Your task to perform on an android device: empty trash in the gmail app Image 0: 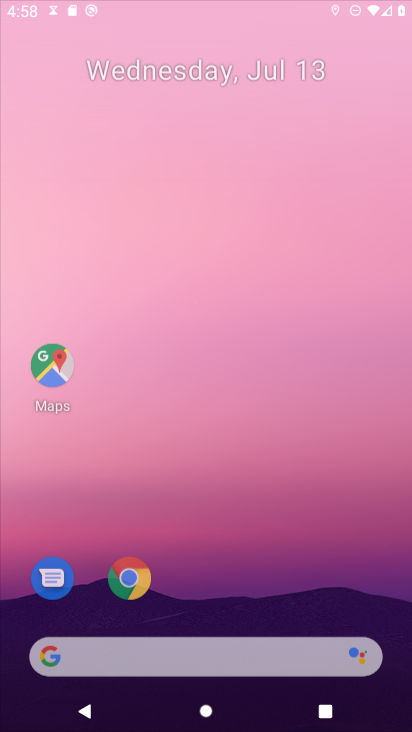
Step 0: click (176, 211)
Your task to perform on an android device: empty trash in the gmail app Image 1: 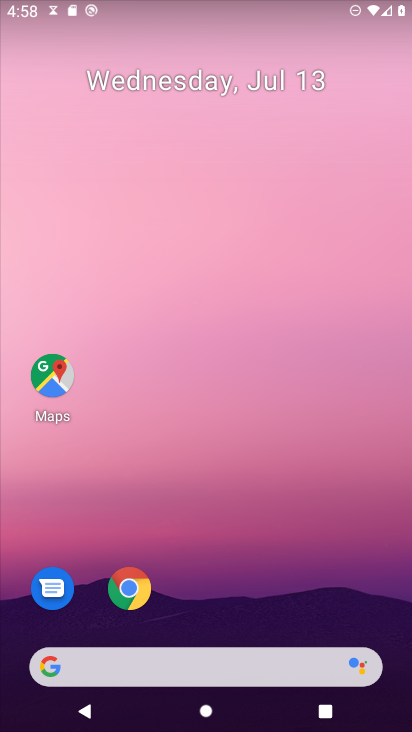
Step 1: drag from (295, 692) to (128, 6)
Your task to perform on an android device: empty trash in the gmail app Image 2: 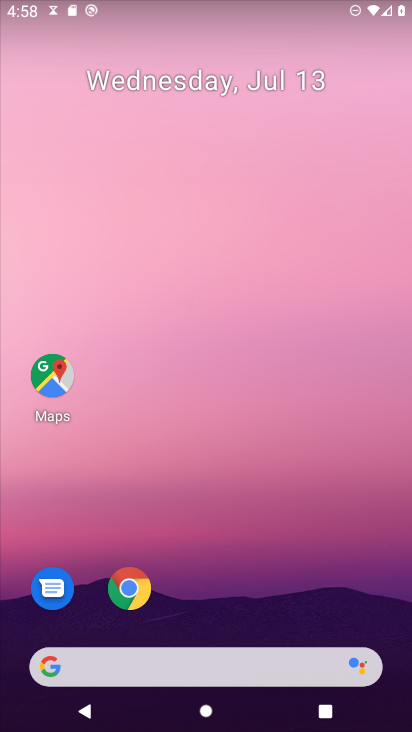
Step 2: drag from (208, 630) to (76, 114)
Your task to perform on an android device: empty trash in the gmail app Image 3: 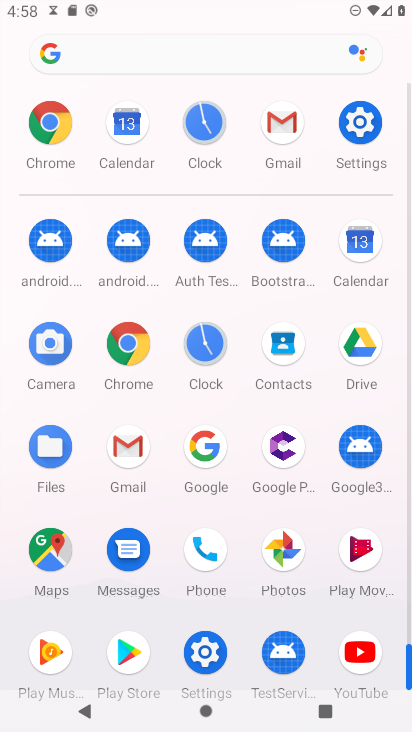
Step 3: click (284, 118)
Your task to perform on an android device: empty trash in the gmail app Image 4: 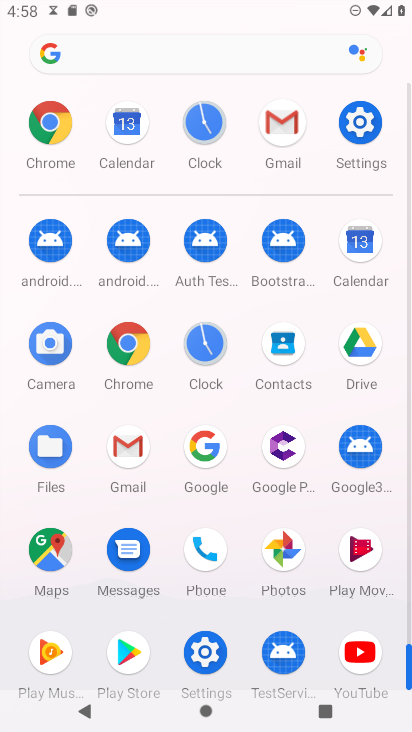
Step 4: click (288, 113)
Your task to perform on an android device: empty trash in the gmail app Image 5: 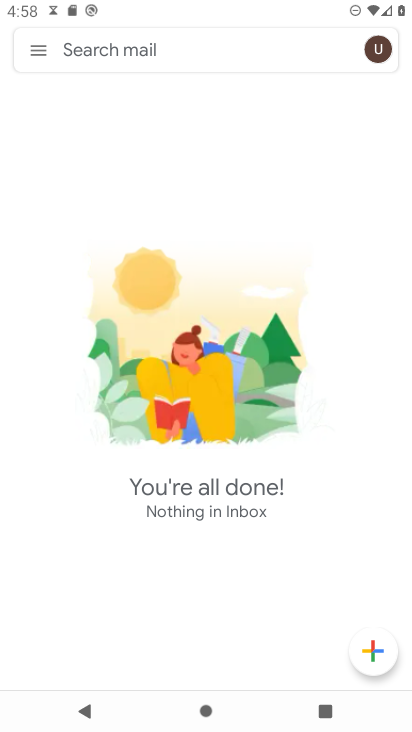
Step 5: click (287, 111)
Your task to perform on an android device: empty trash in the gmail app Image 6: 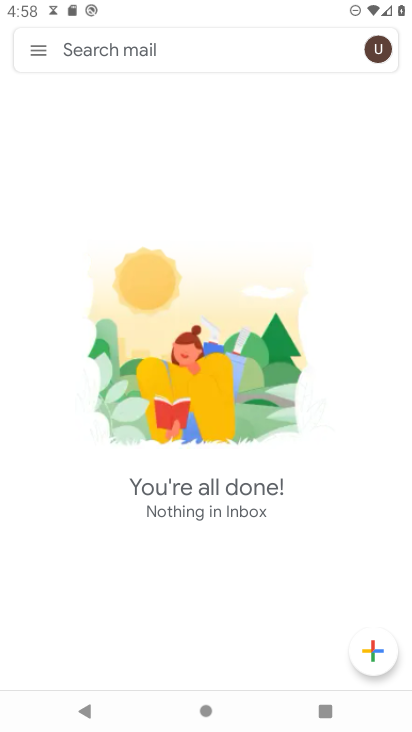
Step 6: click (41, 45)
Your task to perform on an android device: empty trash in the gmail app Image 7: 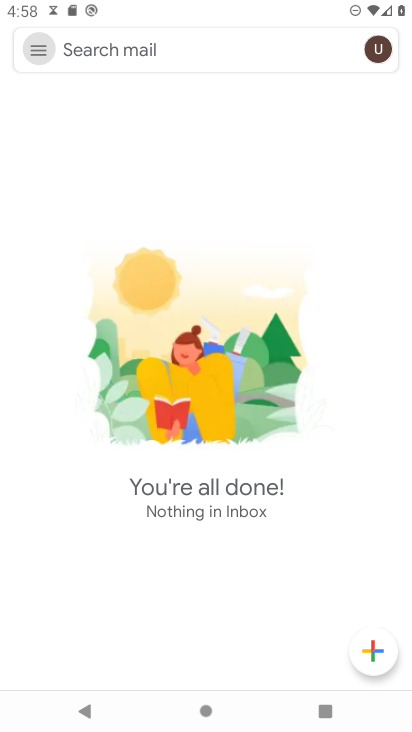
Step 7: click (41, 45)
Your task to perform on an android device: empty trash in the gmail app Image 8: 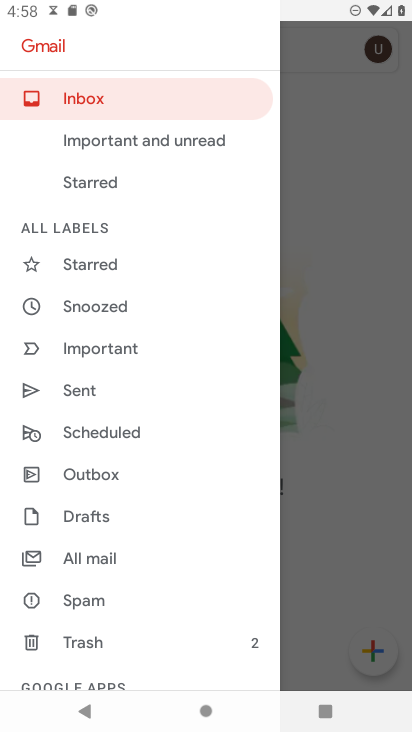
Step 8: click (88, 637)
Your task to perform on an android device: empty trash in the gmail app Image 9: 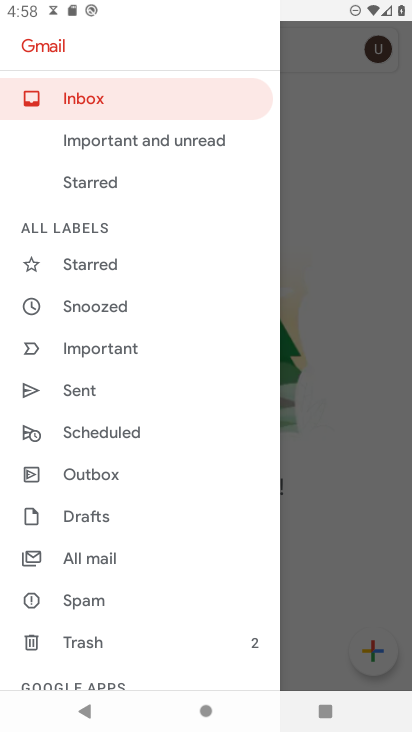
Step 9: click (93, 644)
Your task to perform on an android device: empty trash in the gmail app Image 10: 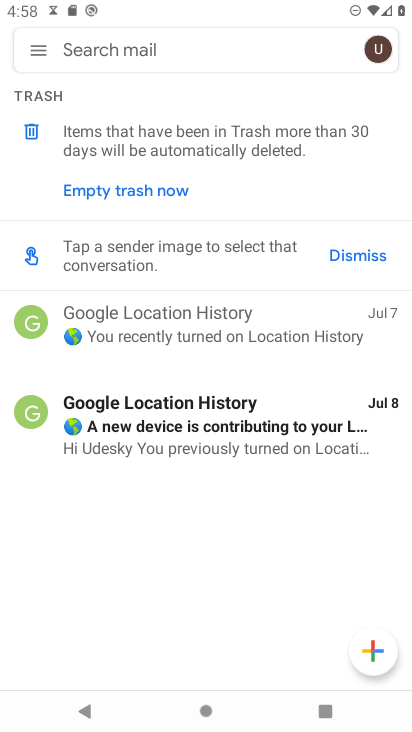
Step 10: click (185, 143)
Your task to perform on an android device: empty trash in the gmail app Image 11: 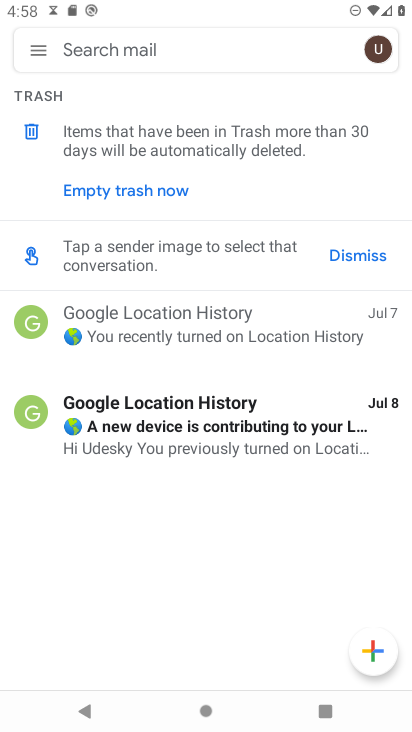
Step 11: click (28, 124)
Your task to perform on an android device: empty trash in the gmail app Image 12: 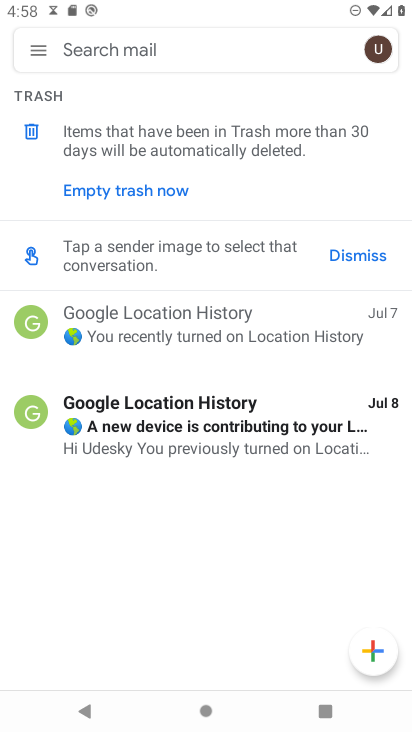
Step 12: click (28, 124)
Your task to perform on an android device: empty trash in the gmail app Image 13: 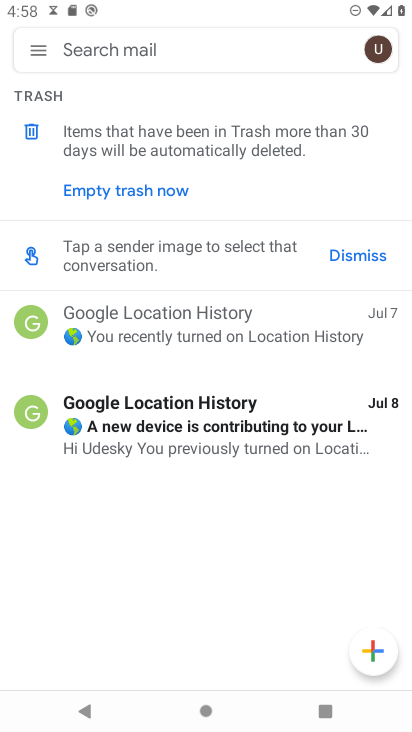
Step 13: click (170, 320)
Your task to perform on an android device: empty trash in the gmail app Image 14: 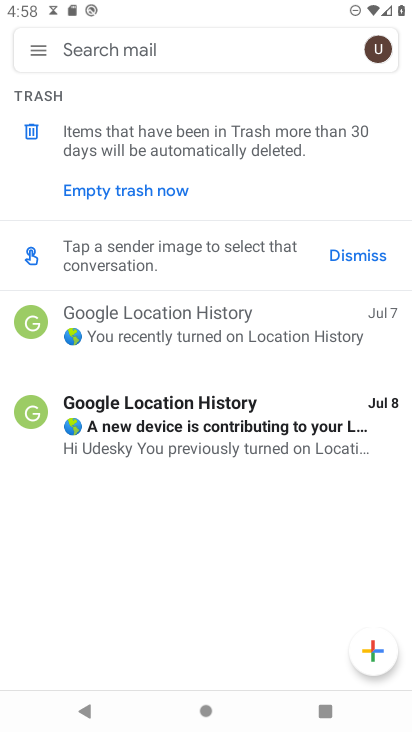
Step 14: click (172, 328)
Your task to perform on an android device: empty trash in the gmail app Image 15: 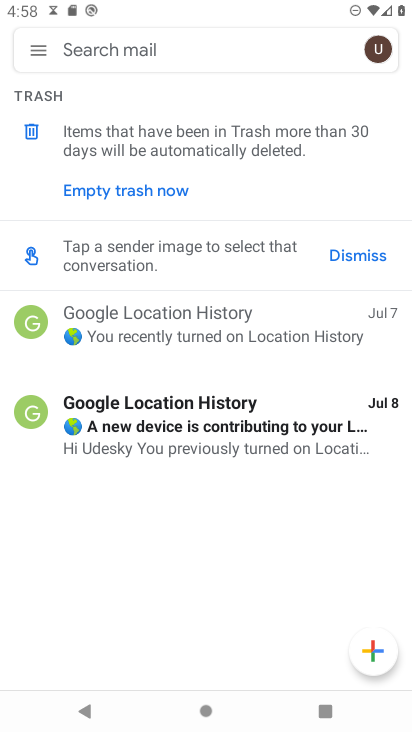
Step 15: click (172, 327)
Your task to perform on an android device: empty trash in the gmail app Image 16: 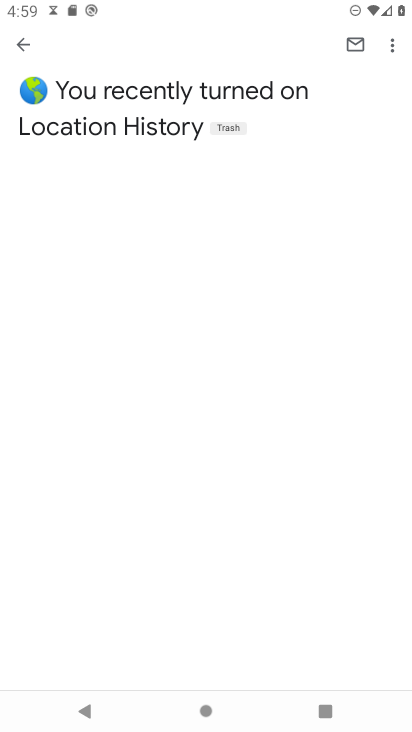
Step 16: click (116, 183)
Your task to perform on an android device: empty trash in the gmail app Image 17: 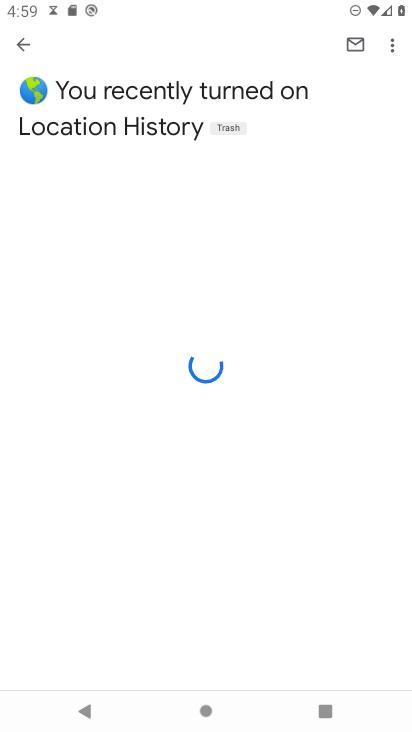
Step 17: click (116, 183)
Your task to perform on an android device: empty trash in the gmail app Image 18: 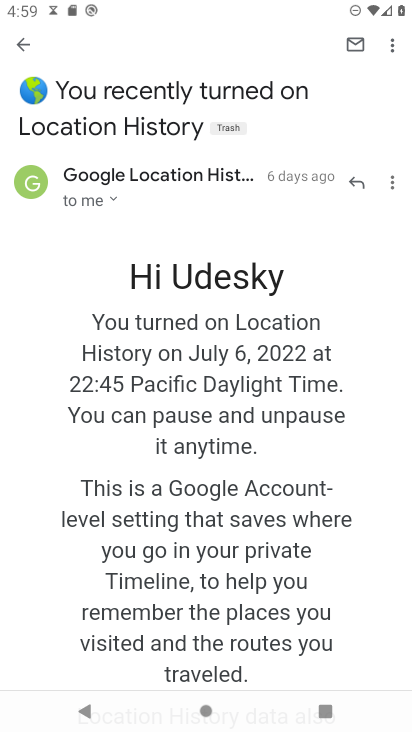
Step 18: task complete